Your task to perform on an android device: turn on bluetooth scan Image 0: 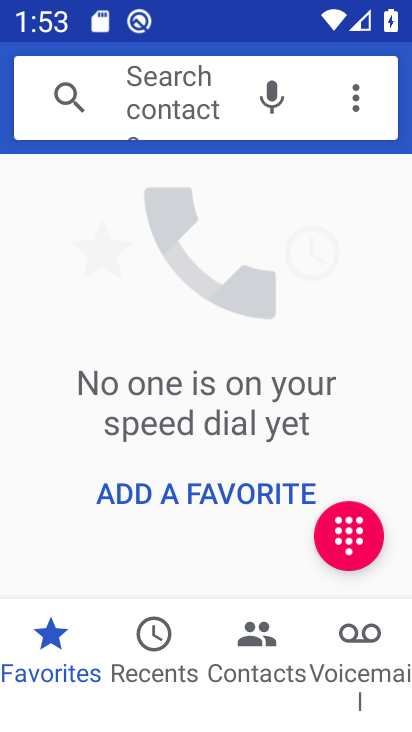
Step 0: press back button
Your task to perform on an android device: turn on bluetooth scan Image 1: 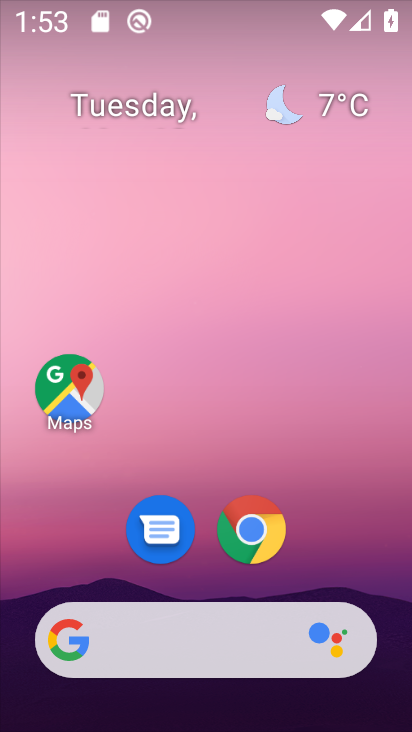
Step 1: drag from (322, 572) to (285, 10)
Your task to perform on an android device: turn on bluetooth scan Image 2: 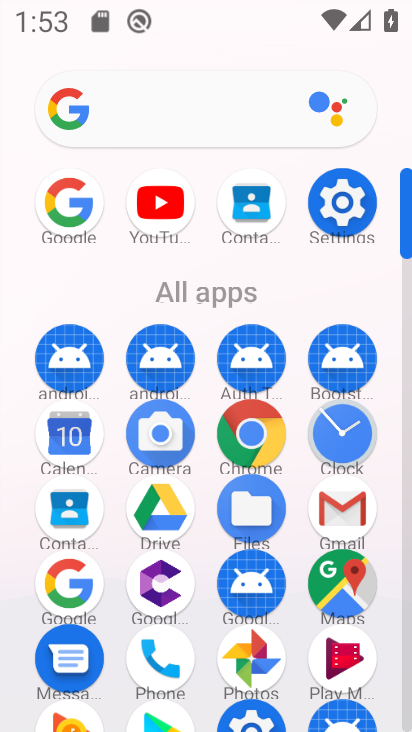
Step 2: click (341, 203)
Your task to perform on an android device: turn on bluetooth scan Image 3: 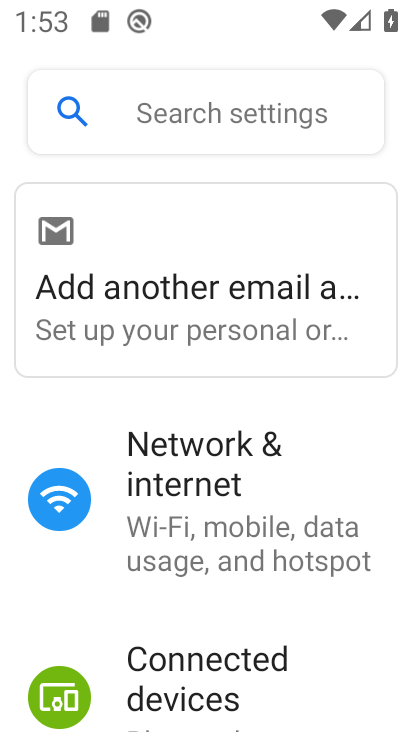
Step 3: drag from (187, 574) to (227, 383)
Your task to perform on an android device: turn on bluetooth scan Image 4: 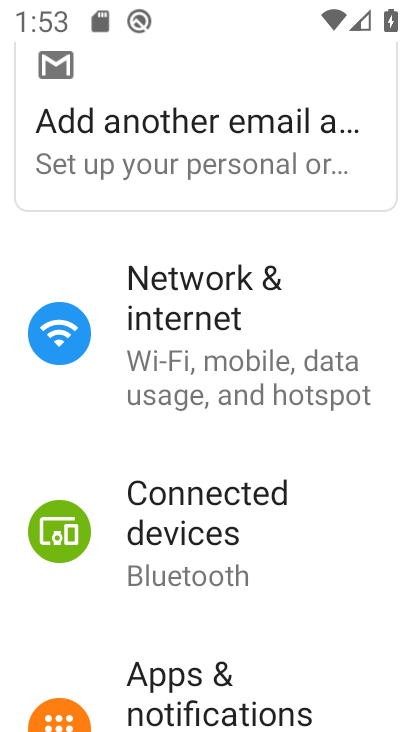
Step 4: drag from (158, 604) to (247, 352)
Your task to perform on an android device: turn on bluetooth scan Image 5: 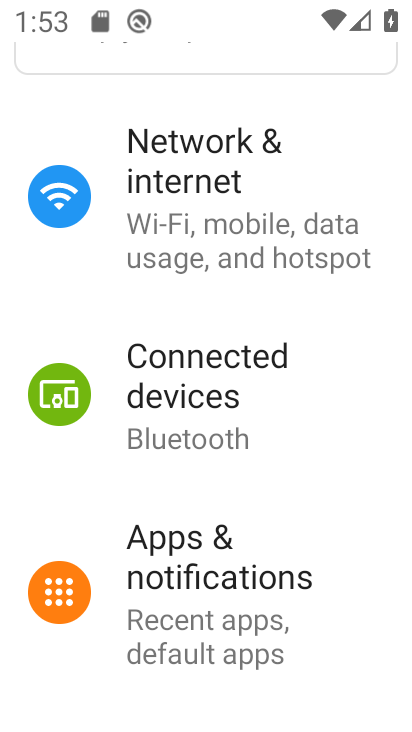
Step 5: drag from (187, 490) to (274, 275)
Your task to perform on an android device: turn on bluetooth scan Image 6: 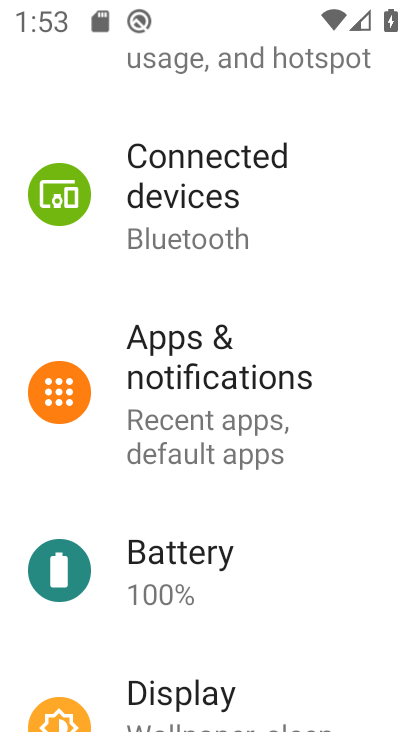
Step 6: drag from (185, 508) to (277, 308)
Your task to perform on an android device: turn on bluetooth scan Image 7: 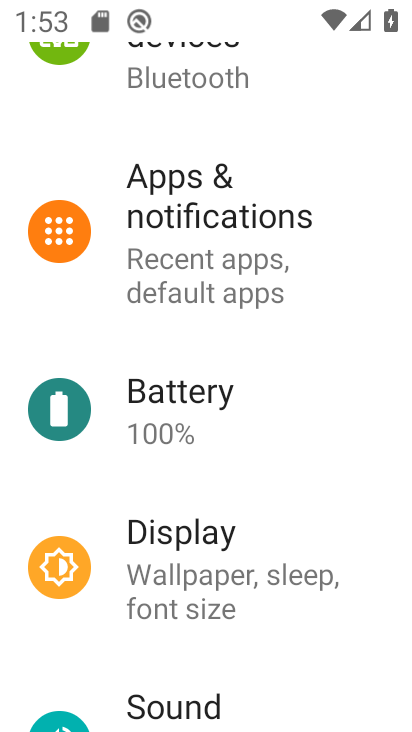
Step 7: drag from (206, 499) to (283, 324)
Your task to perform on an android device: turn on bluetooth scan Image 8: 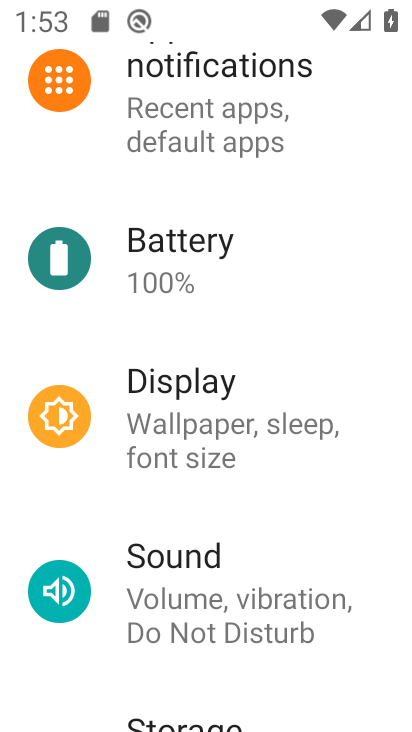
Step 8: drag from (196, 521) to (252, 336)
Your task to perform on an android device: turn on bluetooth scan Image 9: 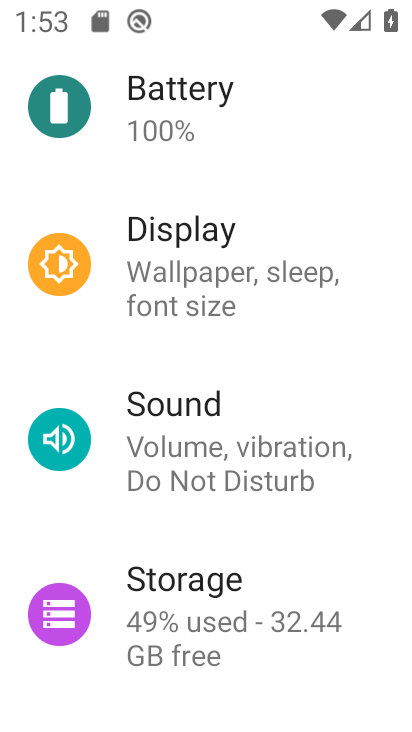
Step 9: drag from (200, 520) to (209, 321)
Your task to perform on an android device: turn on bluetooth scan Image 10: 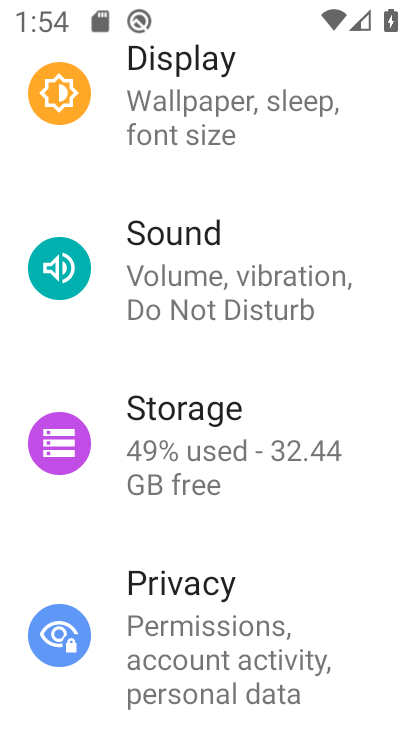
Step 10: drag from (176, 528) to (221, 302)
Your task to perform on an android device: turn on bluetooth scan Image 11: 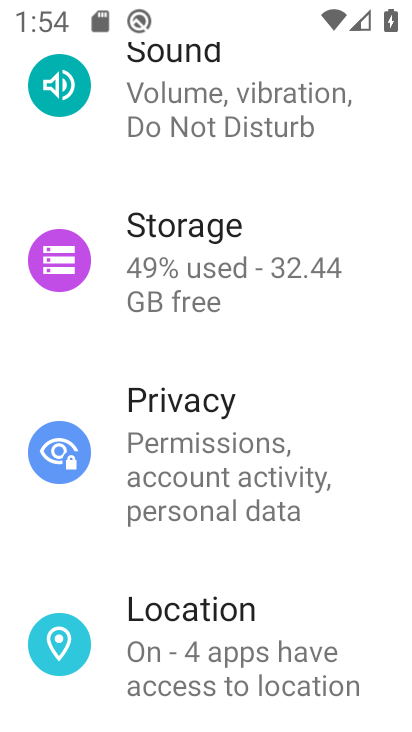
Step 11: drag from (207, 542) to (291, 320)
Your task to perform on an android device: turn on bluetooth scan Image 12: 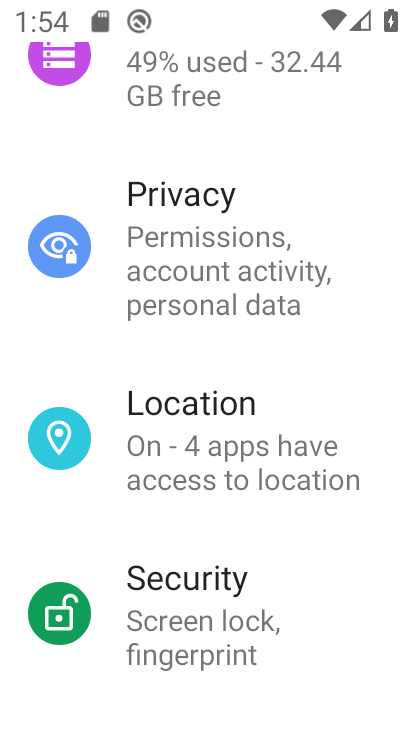
Step 12: drag from (205, 544) to (287, 387)
Your task to perform on an android device: turn on bluetooth scan Image 13: 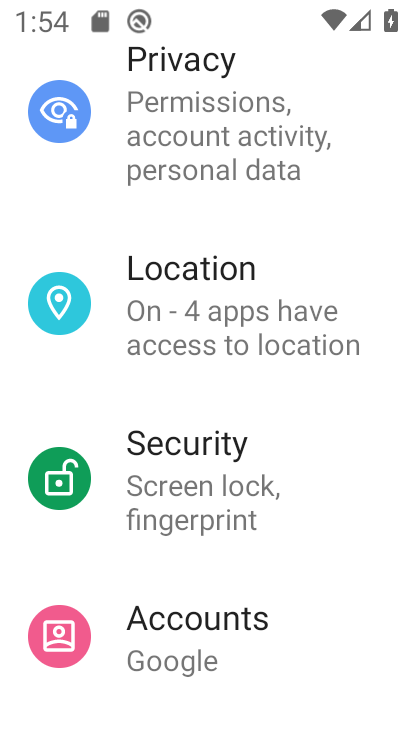
Step 13: drag from (152, 575) to (248, 382)
Your task to perform on an android device: turn on bluetooth scan Image 14: 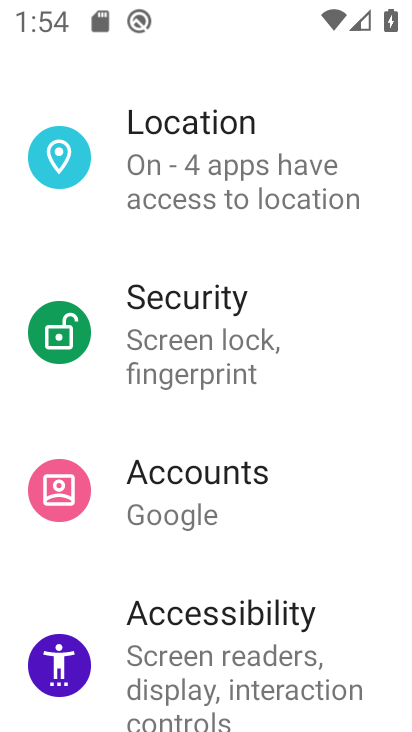
Step 14: click (185, 129)
Your task to perform on an android device: turn on bluetooth scan Image 15: 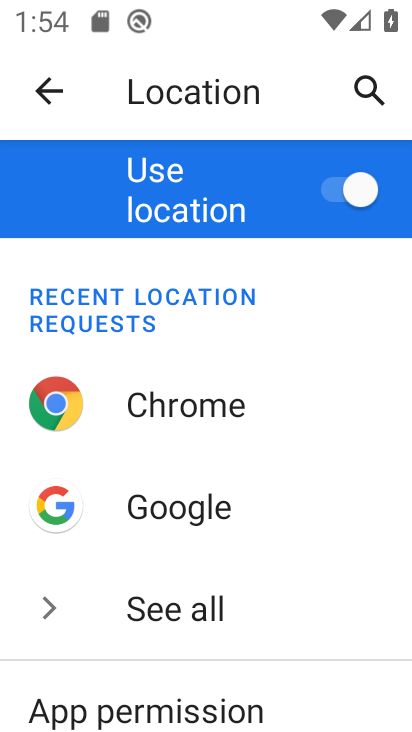
Step 15: drag from (245, 558) to (299, 271)
Your task to perform on an android device: turn on bluetooth scan Image 16: 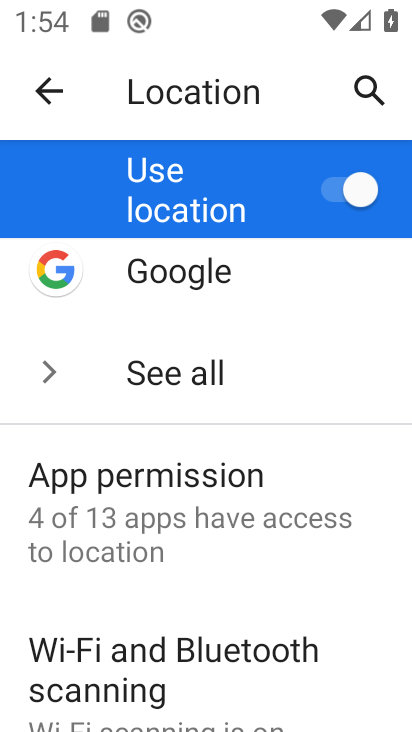
Step 16: drag from (232, 564) to (324, 367)
Your task to perform on an android device: turn on bluetooth scan Image 17: 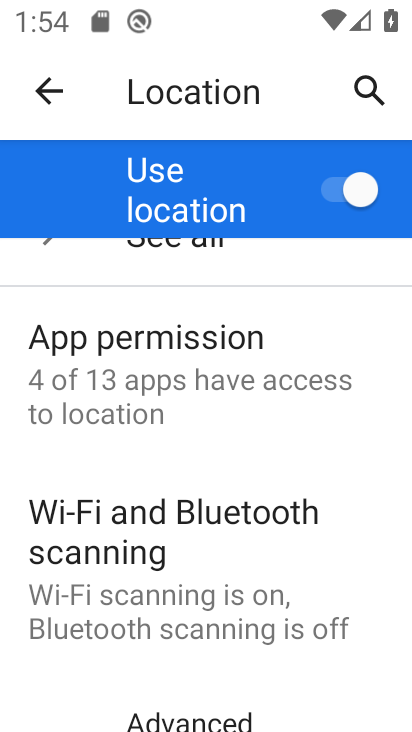
Step 17: click (142, 512)
Your task to perform on an android device: turn on bluetooth scan Image 18: 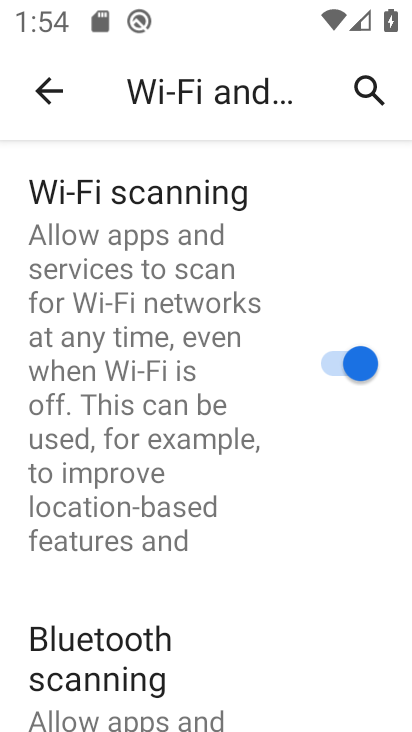
Step 18: drag from (201, 654) to (241, 293)
Your task to perform on an android device: turn on bluetooth scan Image 19: 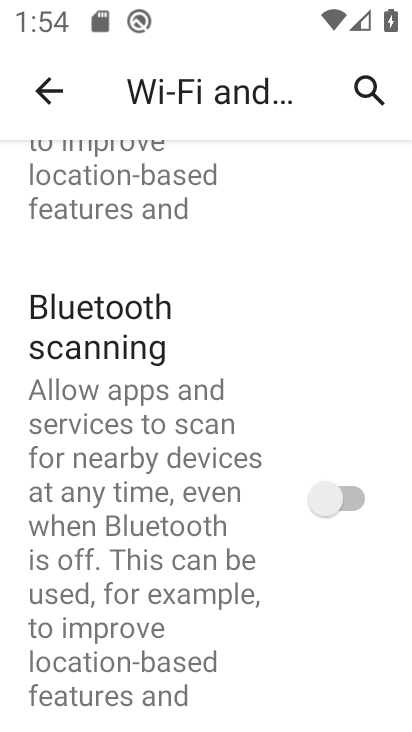
Step 19: click (339, 507)
Your task to perform on an android device: turn on bluetooth scan Image 20: 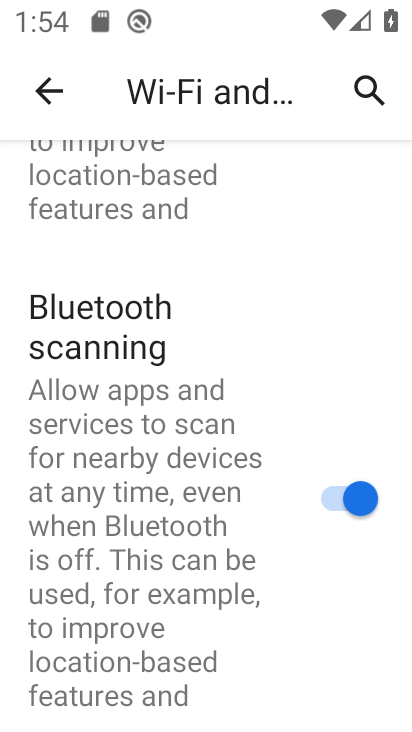
Step 20: task complete